Your task to perform on an android device: Open calendar and show me the second week of next month Image 0: 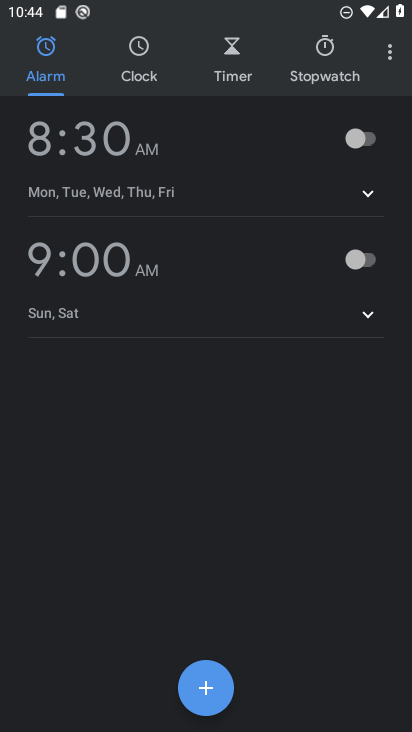
Step 0: press home button
Your task to perform on an android device: Open calendar and show me the second week of next month Image 1: 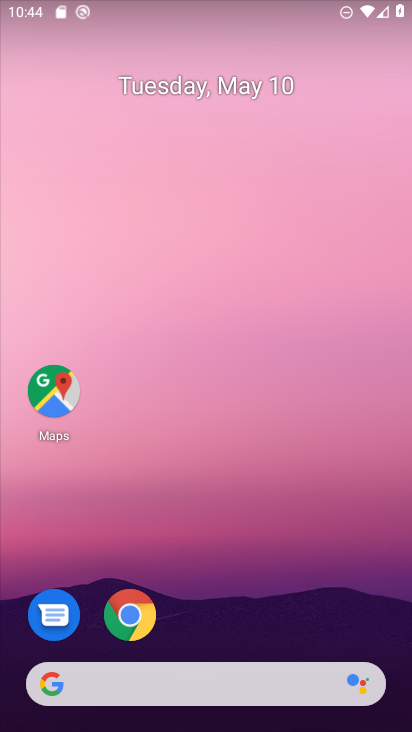
Step 1: drag from (155, 630) to (237, 190)
Your task to perform on an android device: Open calendar and show me the second week of next month Image 2: 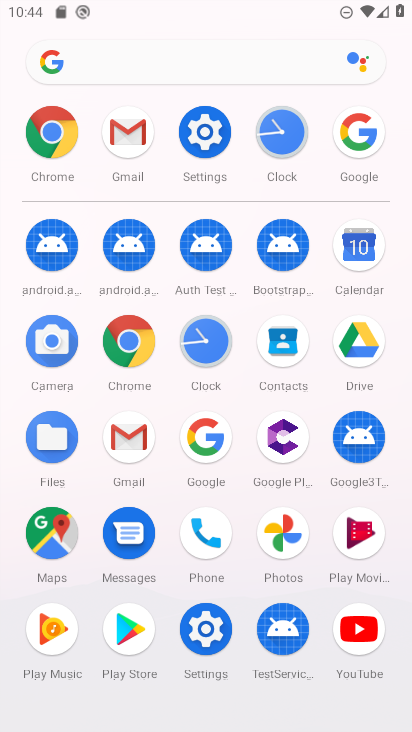
Step 2: click (367, 249)
Your task to perform on an android device: Open calendar and show me the second week of next month Image 3: 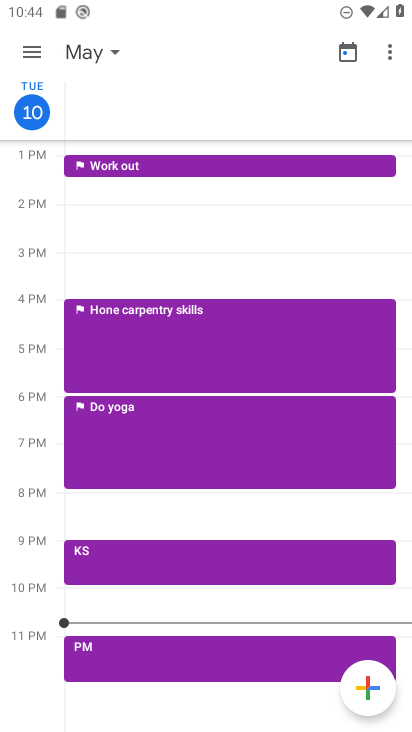
Step 3: drag from (251, 608) to (258, 271)
Your task to perform on an android device: Open calendar and show me the second week of next month Image 4: 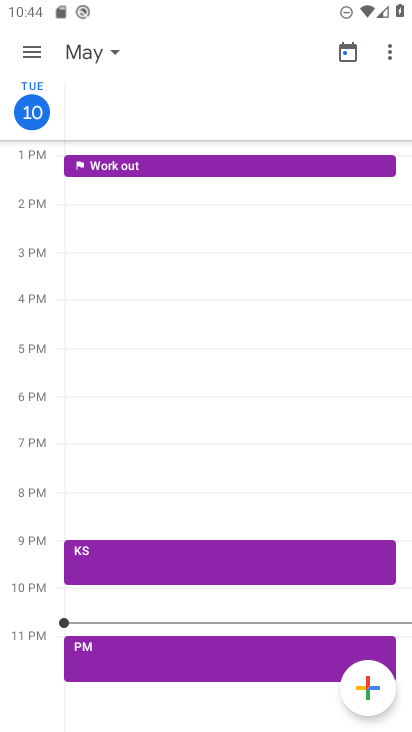
Step 4: click (96, 52)
Your task to perform on an android device: Open calendar and show me the second week of next month Image 5: 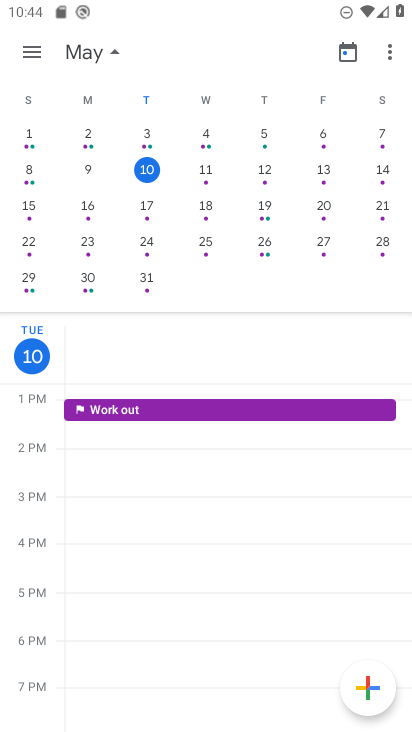
Step 5: drag from (323, 190) to (45, 179)
Your task to perform on an android device: Open calendar and show me the second week of next month Image 6: 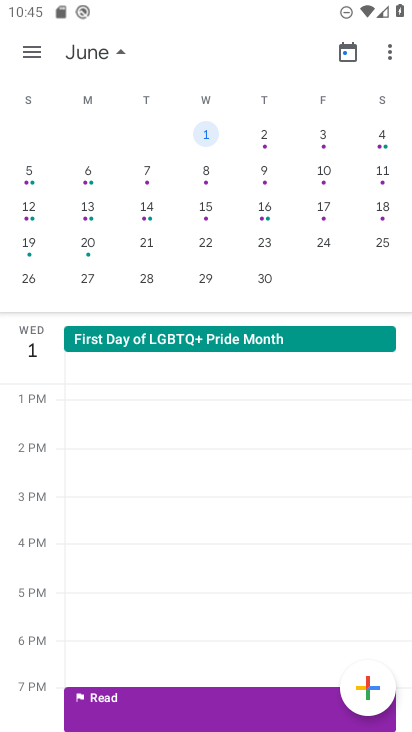
Step 6: click (269, 172)
Your task to perform on an android device: Open calendar and show me the second week of next month Image 7: 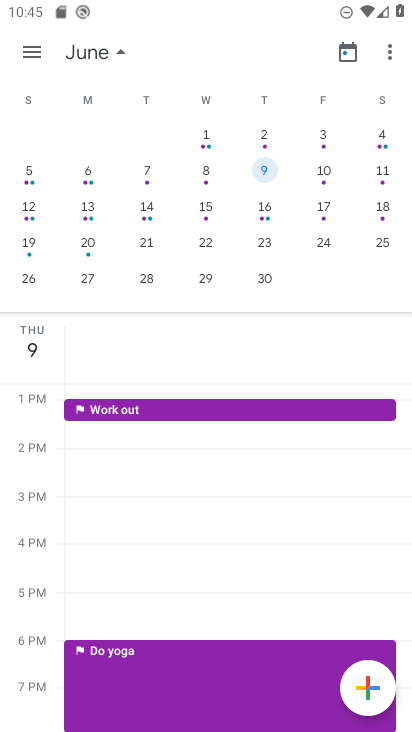
Step 7: task complete